Your task to perform on an android device: turn on data saver in the chrome app Image 0: 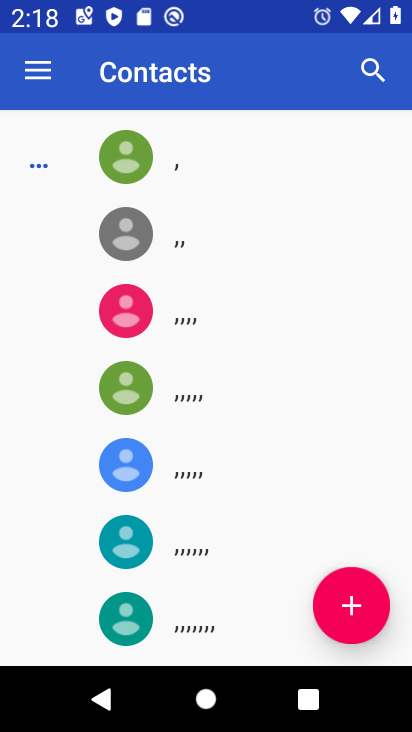
Step 0: press home button
Your task to perform on an android device: turn on data saver in the chrome app Image 1: 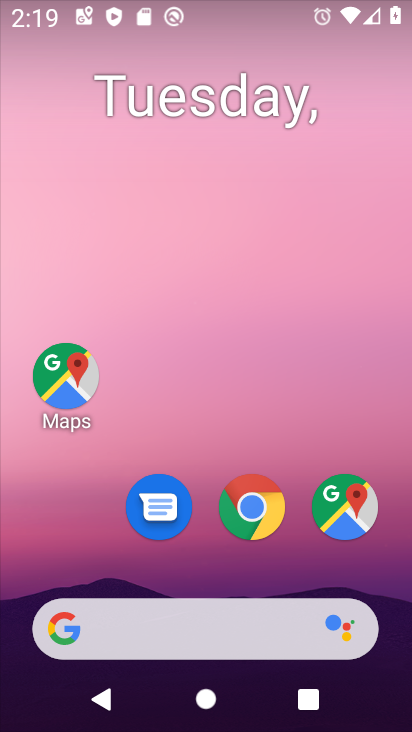
Step 1: drag from (289, 494) to (292, 173)
Your task to perform on an android device: turn on data saver in the chrome app Image 2: 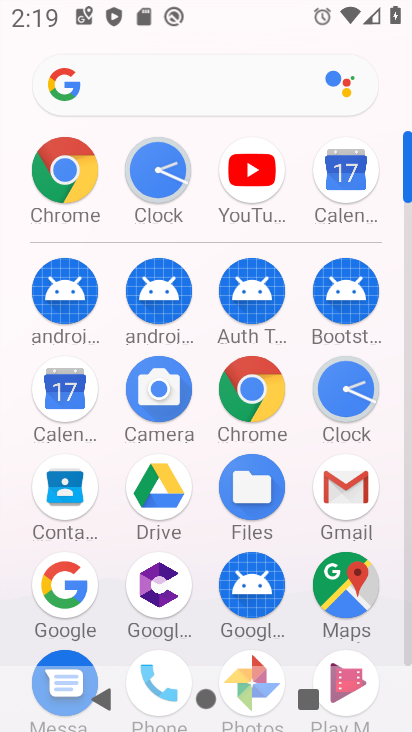
Step 2: click (256, 389)
Your task to perform on an android device: turn on data saver in the chrome app Image 3: 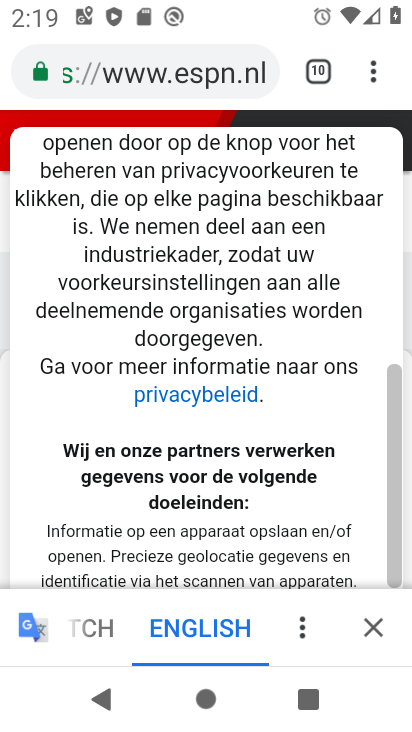
Step 3: click (382, 67)
Your task to perform on an android device: turn on data saver in the chrome app Image 4: 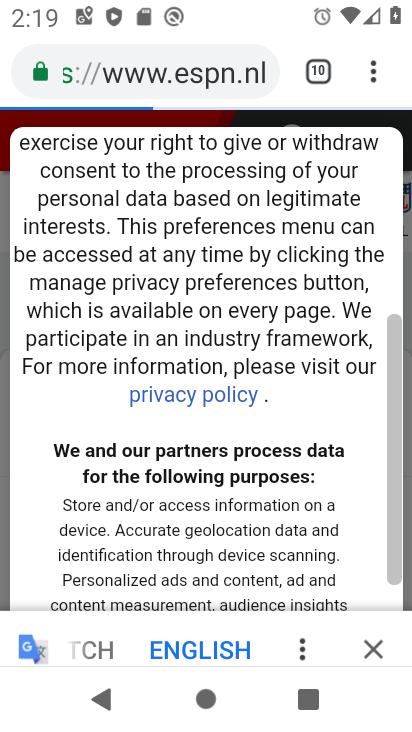
Step 4: click (373, 73)
Your task to perform on an android device: turn on data saver in the chrome app Image 5: 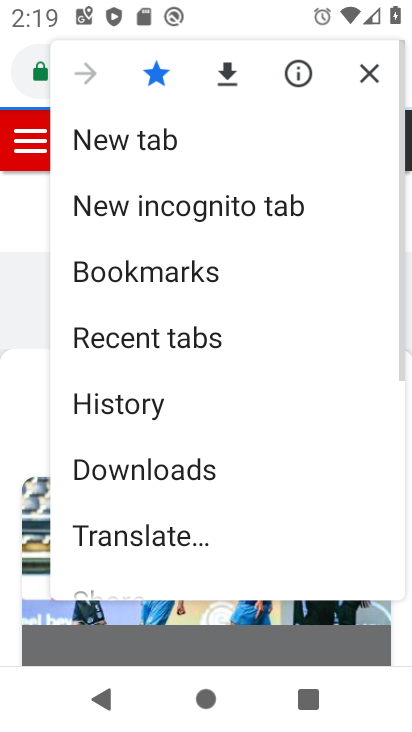
Step 5: drag from (291, 284) to (297, 113)
Your task to perform on an android device: turn on data saver in the chrome app Image 6: 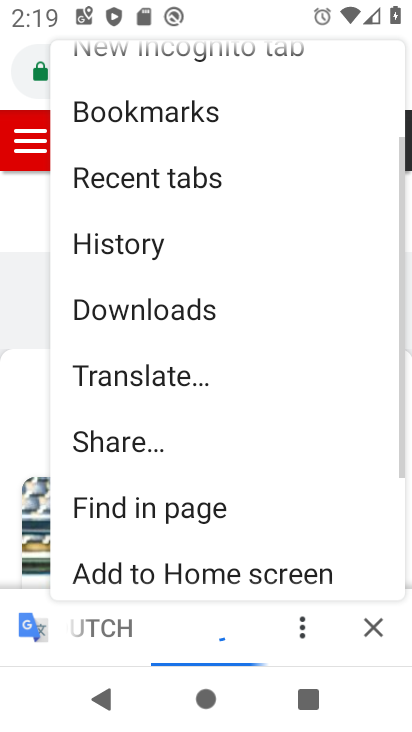
Step 6: drag from (223, 514) to (255, 136)
Your task to perform on an android device: turn on data saver in the chrome app Image 7: 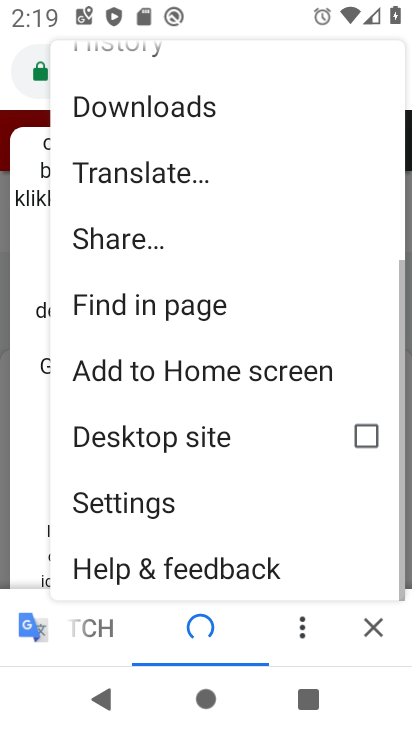
Step 7: click (188, 502)
Your task to perform on an android device: turn on data saver in the chrome app Image 8: 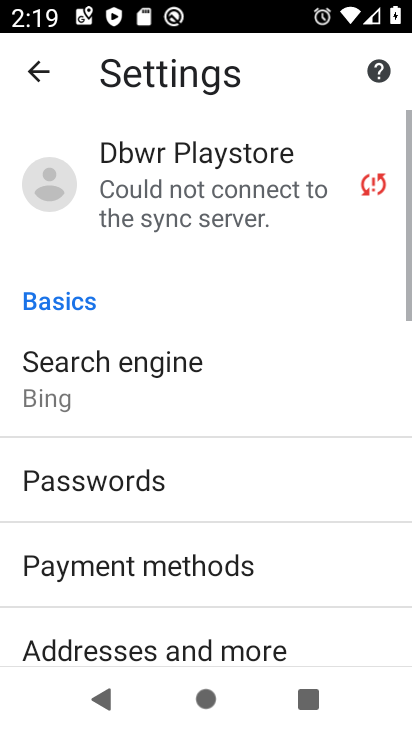
Step 8: drag from (191, 555) to (188, 214)
Your task to perform on an android device: turn on data saver in the chrome app Image 9: 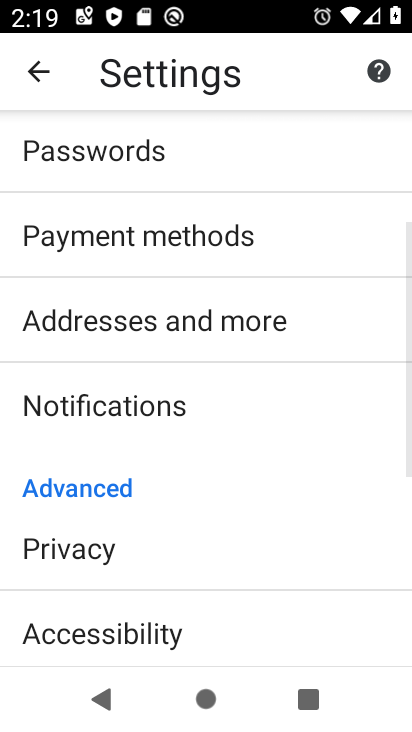
Step 9: drag from (135, 596) to (186, 299)
Your task to perform on an android device: turn on data saver in the chrome app Image 10: 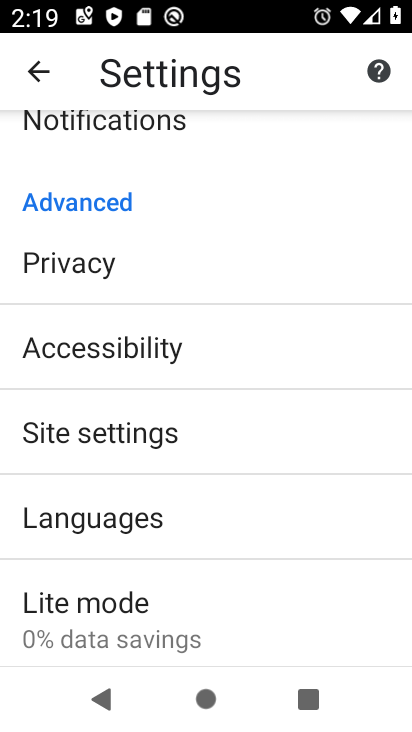
Step 10: click (147, 525)
Your task to perform on an android device: turn on data saver in the chrome app Image 11: 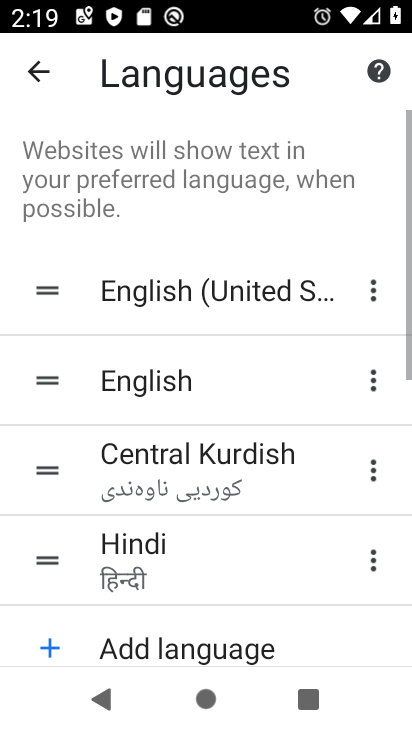
Step 11: click (41, 84)
Your task to perform on an android device: turn on data saver in the chrome app Image 12: 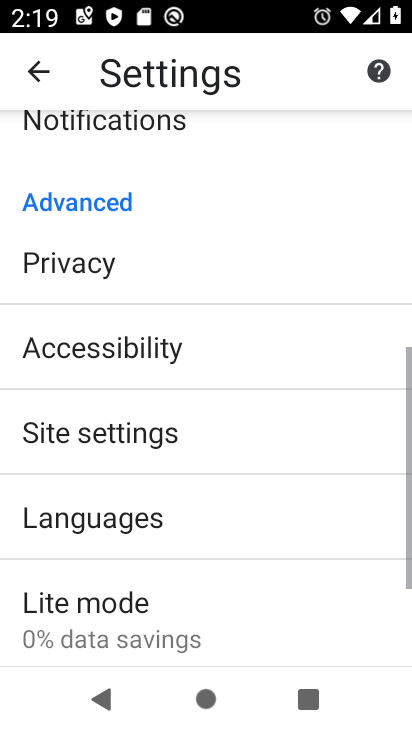
Step 12: drag from (212, 623) to (231, 388)
Your task to perform on an android device: turn on data saver in the chrome app Image 13: 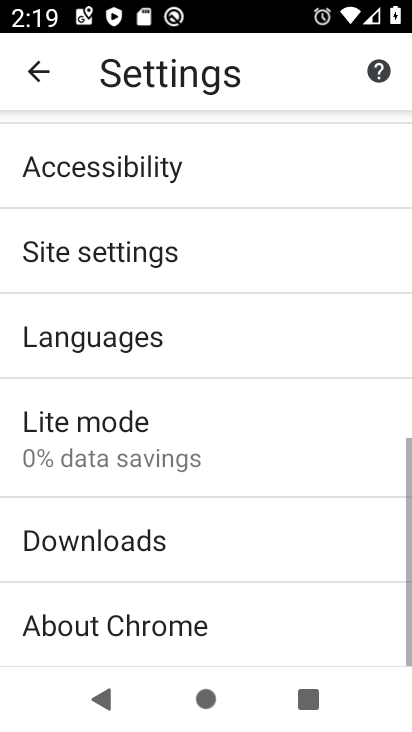
Step 13: click (223, 407)
Your task to perform on an android device: turn on data saver in the chrome app Image 14: 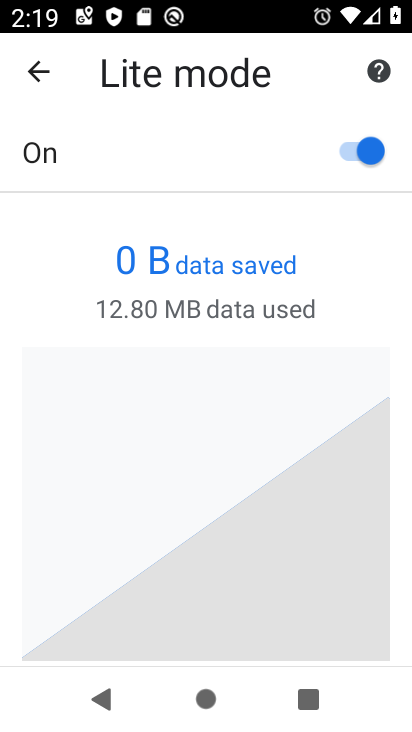
Step 14: task complete